Your task to perform on an android device: uninstall "Yahoo Mail" Image 0: 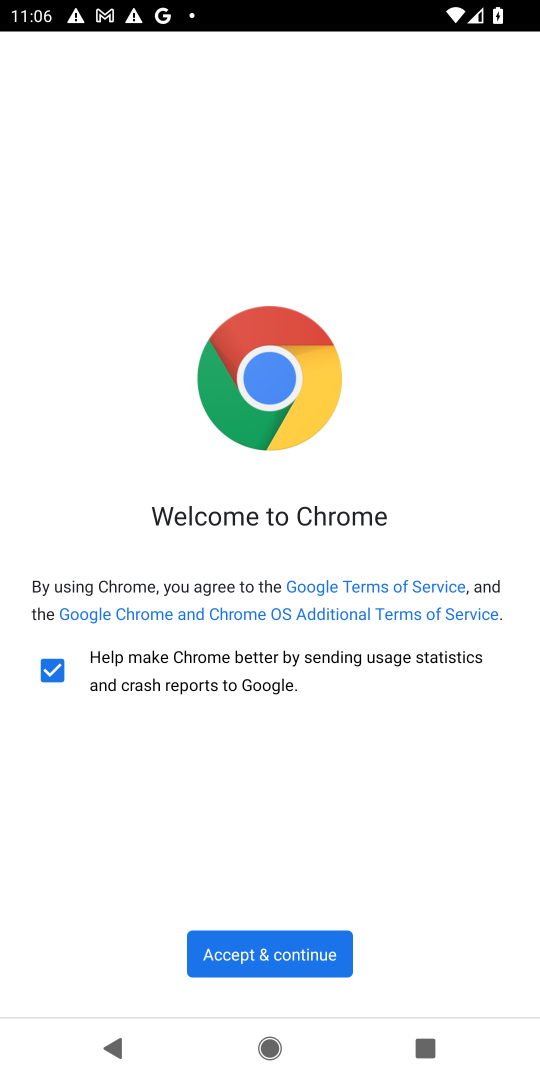
Step 0: press home button
Your task to perform on an android device: uninstall "Yahoo Mail" Image 1: 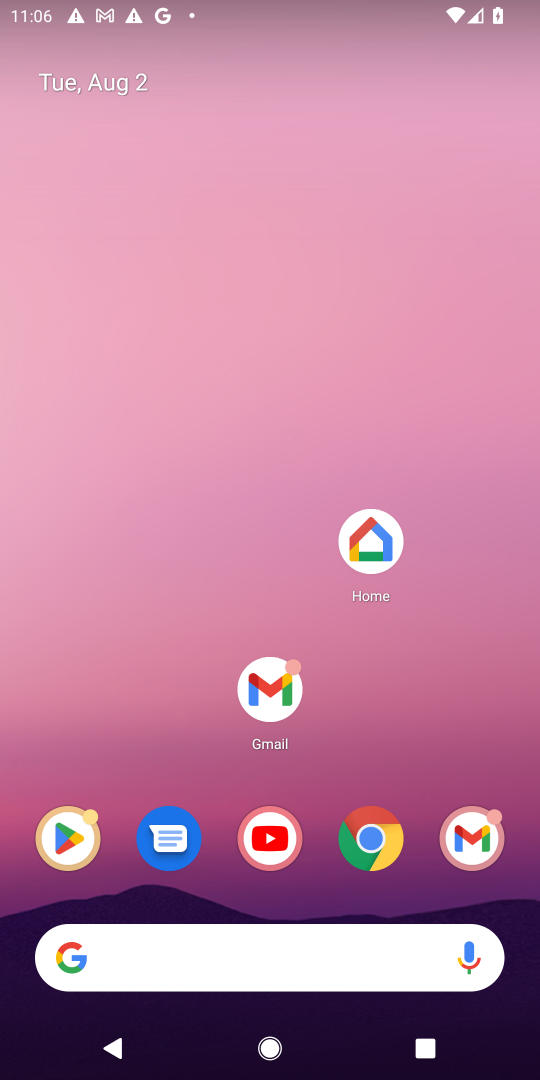
Step 1: drag from (399, 747) to (437, 302)
Your task to perform on an android device: uninstall "Yahoo Mail" Image 2: 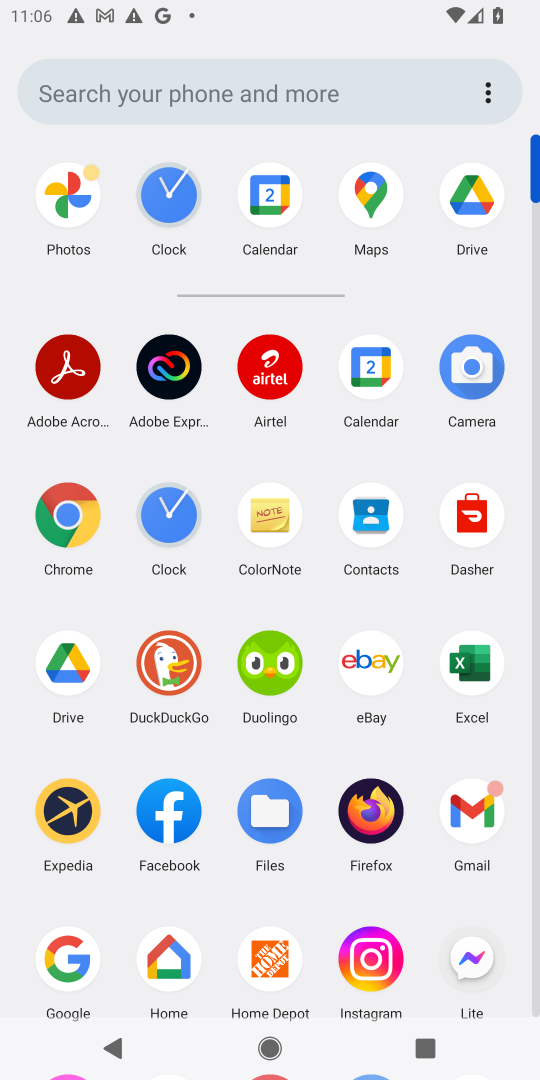
Step 2: drag from (406, 868) to (415, 661)
Your task to perform on an android device: uninstall "Yahoo Mail" Image 3: 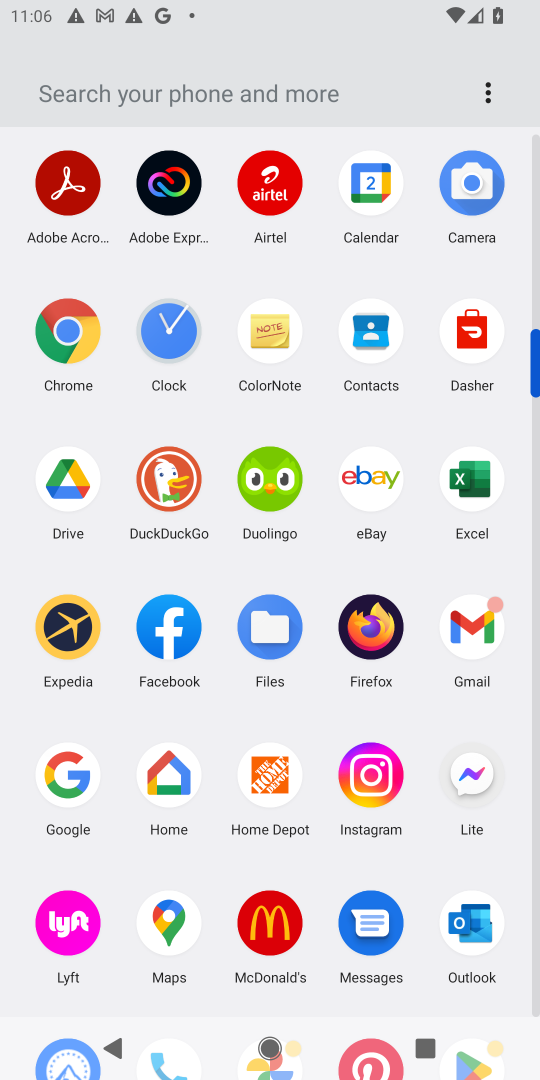
Step 3: drag from (411, 946) to (411, 696)
Your task to perform on an android device: uninstall "Yahoo Mail" Image 4: 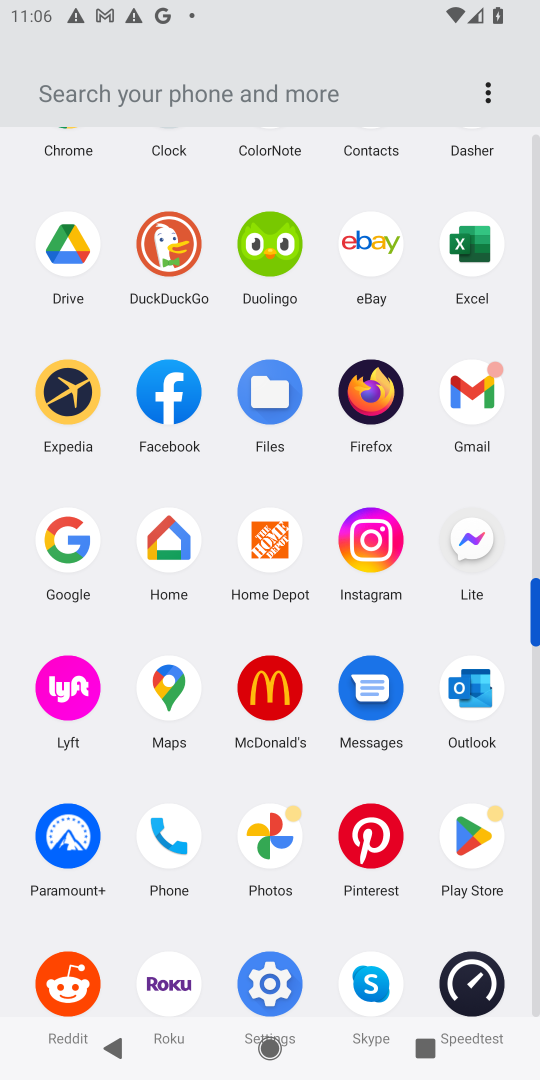
Step 4: click (482, 856)
Your task to perform on an android device: uninstall "Yahoo Mail" Image 5: 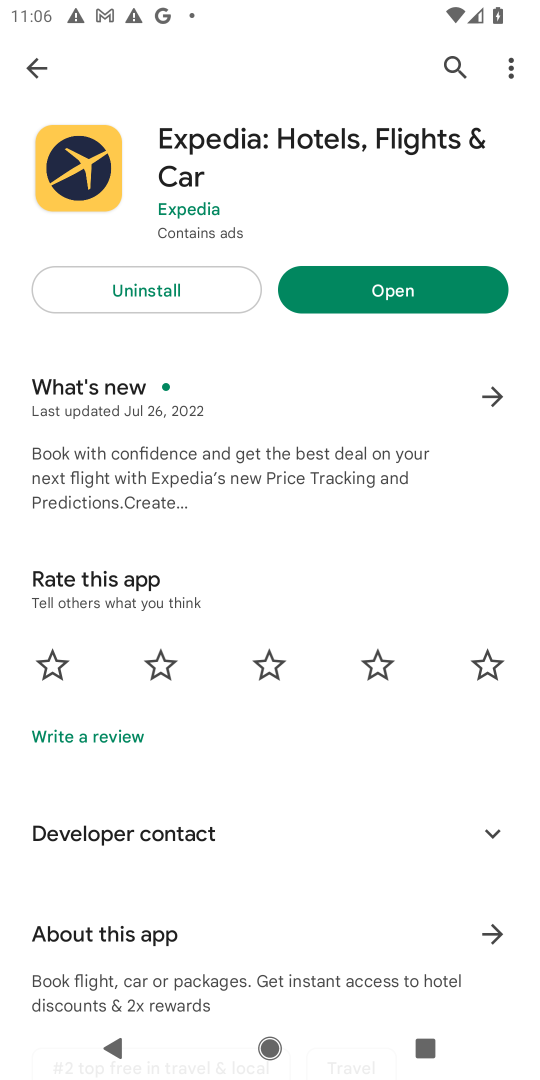
Step 5: click (447, 60)
Your task to perform on an android device: uninstall "Yahoo Mail" Image 6: 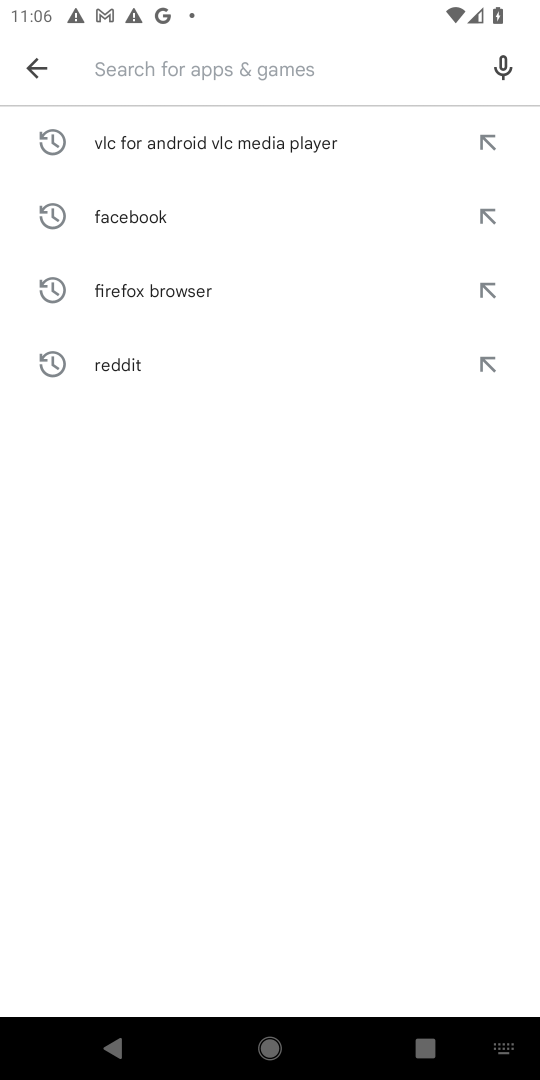
Step 6: click (363, 65)
Your task to perform on an android device: uninstall "Yahoo Mail" Image 7: 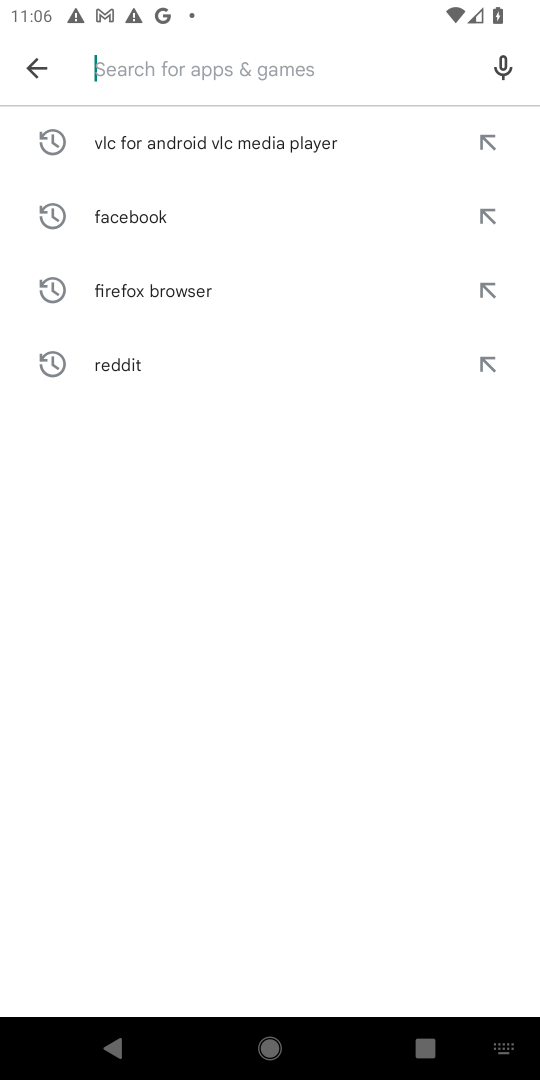
Step 7: type "yahoo mail"
Your task to perform on an android device: uninstall "Yahoo Mail" Image 8: 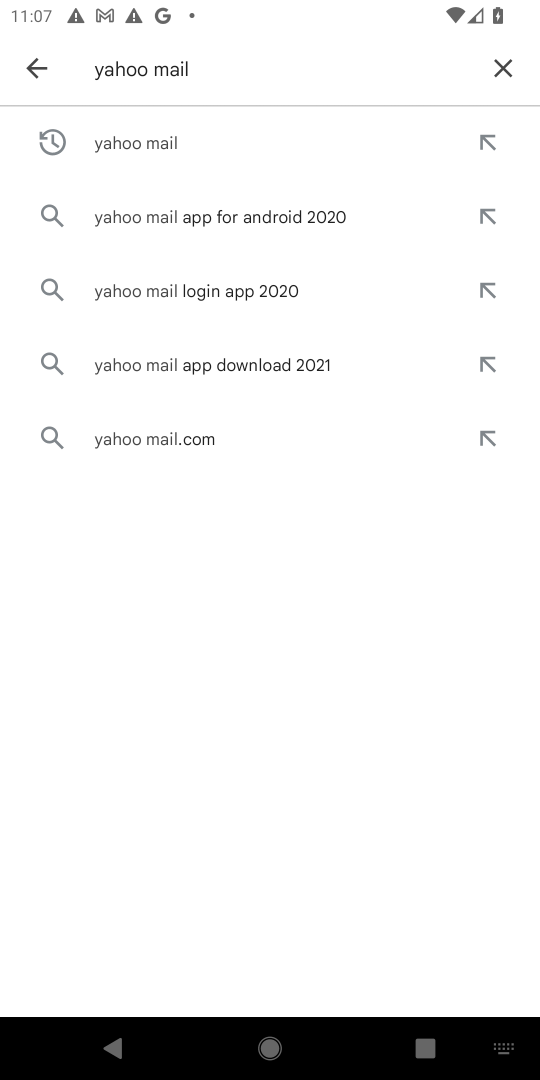
Step 8: click (189, 142)
Your task to perform on an android device: uninstall "Yahoo Mail" Image 9: 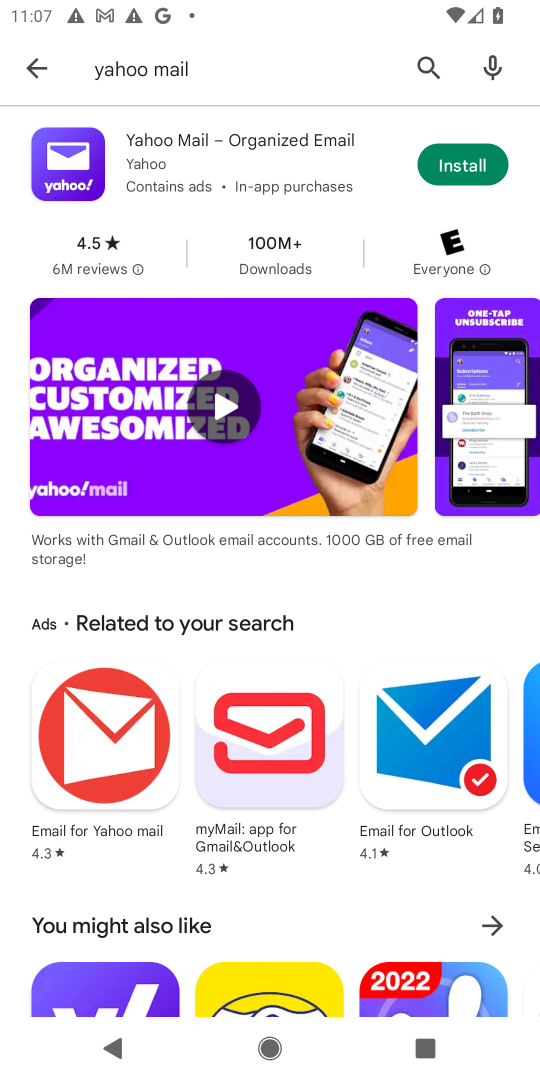
Step 9: task complete